Your task to perform on an android device: change the clock display to analog Image 0: 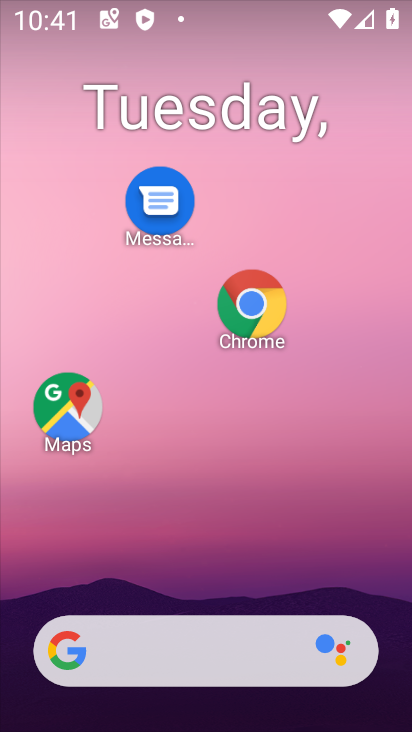
Step 0: drag from (293, 388) to (324, 166)
Your task to perform on an android device: change the clock display to analog Image 1: 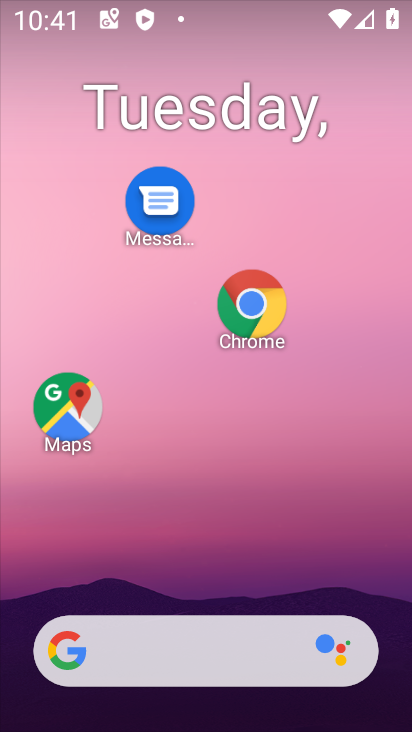
Step 1: drag from (263, 605) to (319, 111)
Your task to perform on an android device: change the clock display to analog Image 2: 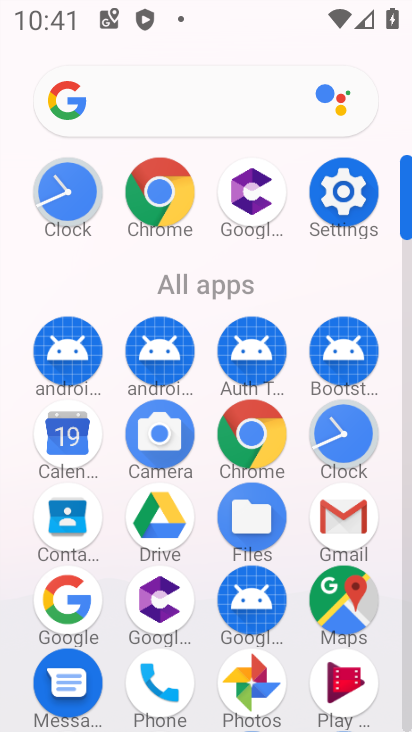
Step 2: click (333, 420)
Your task to perform on an android device: change the clock display to analog Image 3: 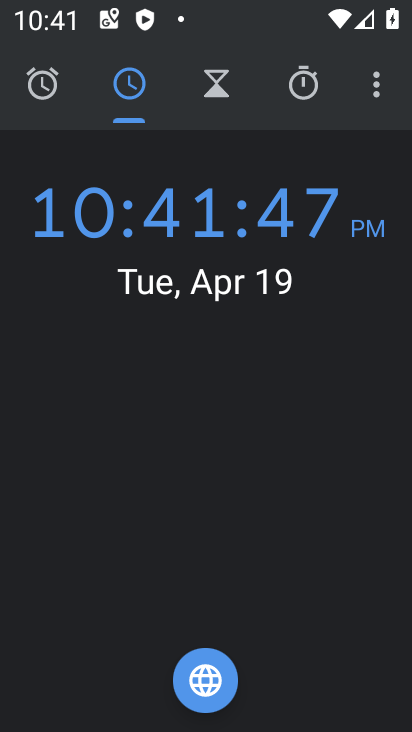
Step 3: click (383, 93)
Your task to perform on an android device: change the clock display to analog Image 4: 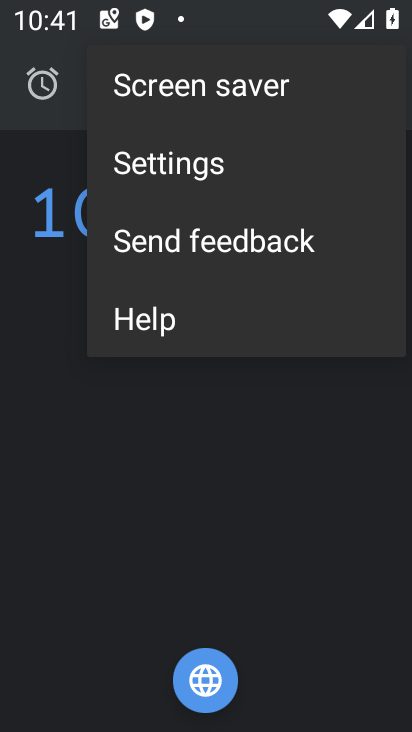
Step 4: click (284, 172)
Your task to perform on an android device: change the clock display to analog Image 5: 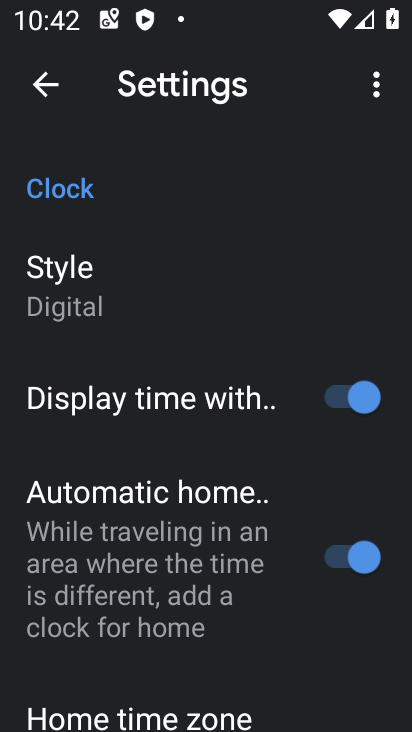
Step 5: click (116, 261)
Your task to perform on an android device: change the clock display to analog Image 6: 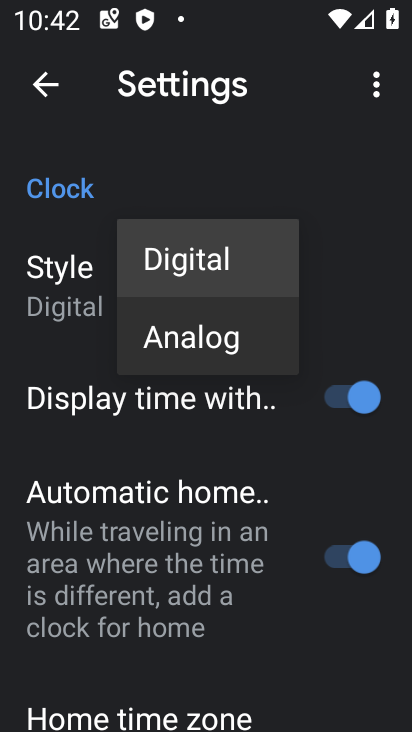
Step 6: click (178, 324)
Your task to perform on an android device: change the clock display to analog Image 7: 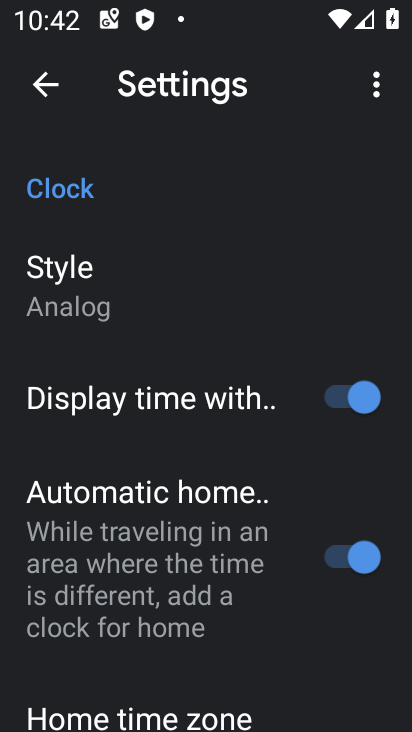
Step 7: task complete